Your task to perform on an android device: Open display settings Image 0: 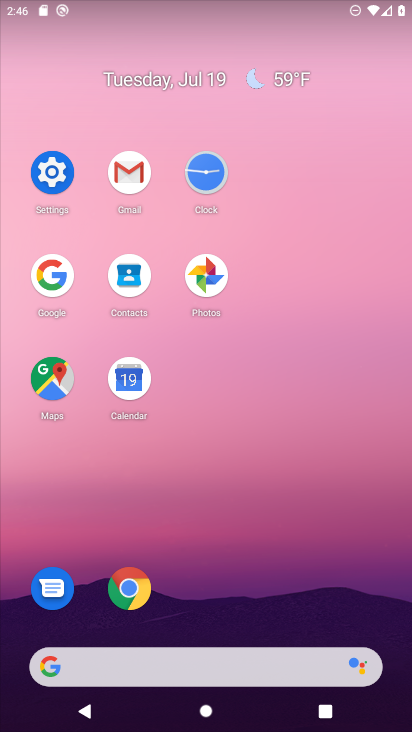
Step 0: click (55, 164)
Your task to perform on an android device: Open display settings Image 1: 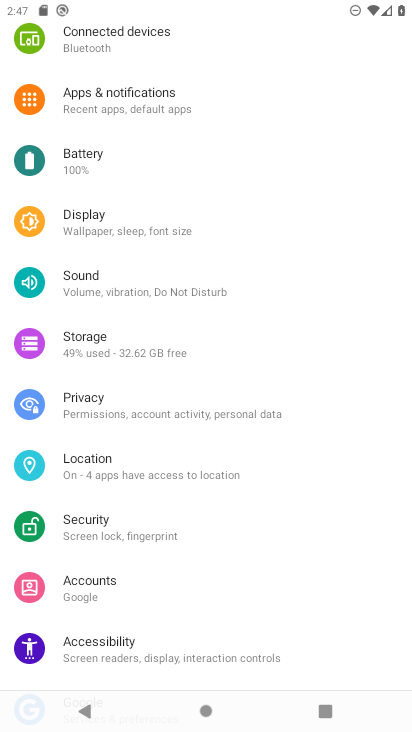
Step 1: click (233, 210)
Your task to perform on an android device: Open display settings Image 2: 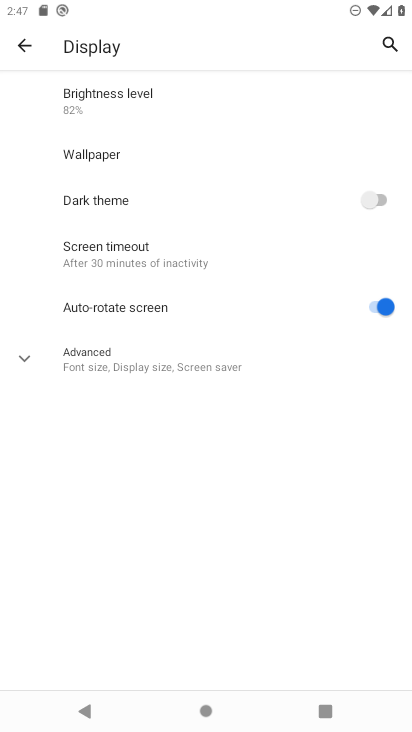
Step 2: task complete